Your task to perform on an android device: Open Maps and search for coffee Image 0: 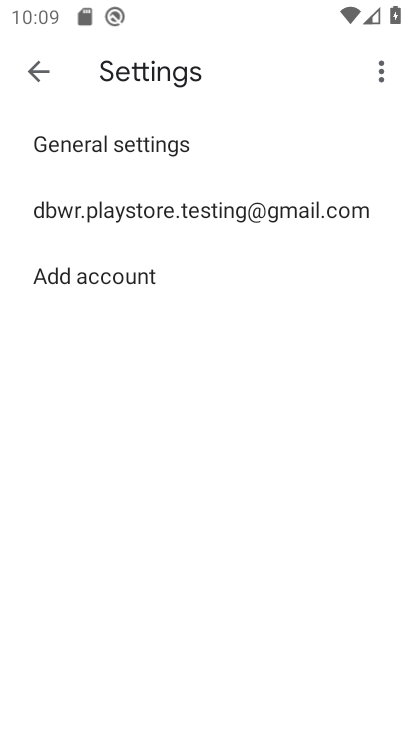
Step 0: press home button
Your task to perform on an android device: Open Maps and search for coffee Image 1: 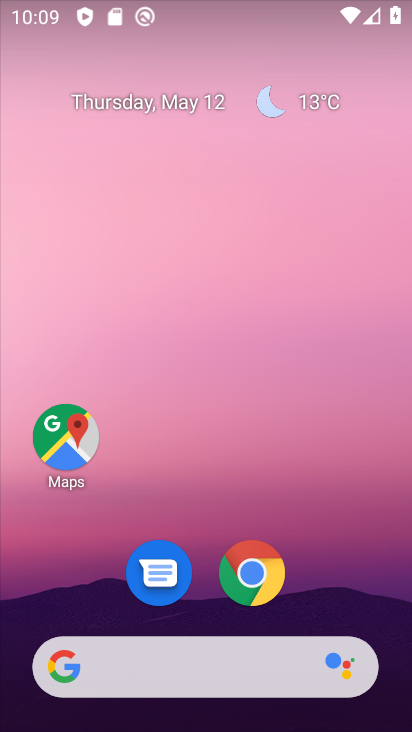
Step 1: click (53, 417)
Your task to perform on an android device: Open Maps and search for coffee Image 2: 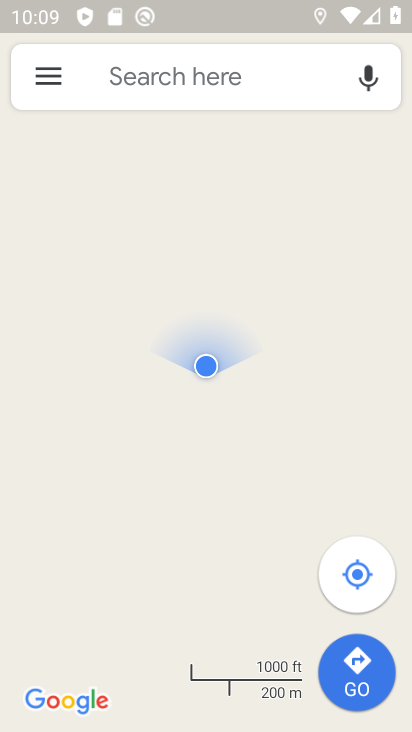
Step 2: click (150, 82)
Your task to perform on an android device: Open Maps and search for coffee Image 3: 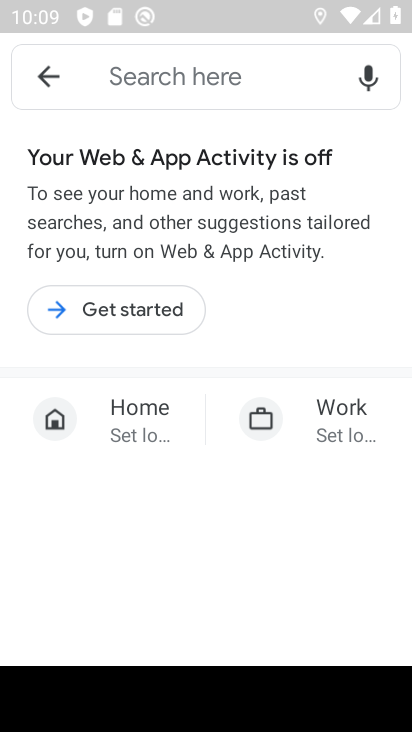
Step 3: click (139, 295)
Your task to perform on an android device: Open Maps and search for coffee Image 4: 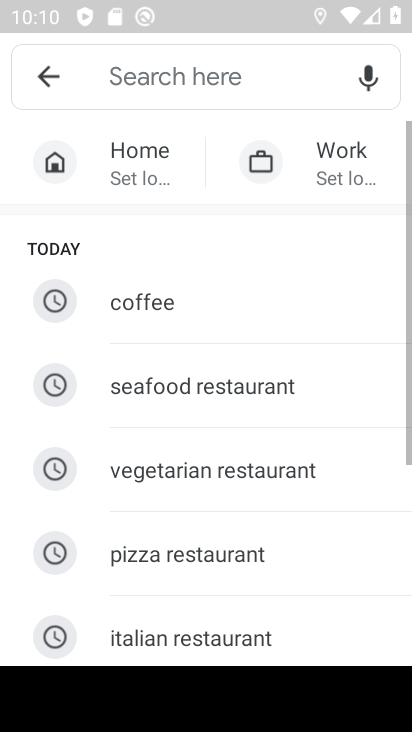
Step 4: click (142, 291)
Your task to perform on an android device: Open Maps and search for coffee Image 5: 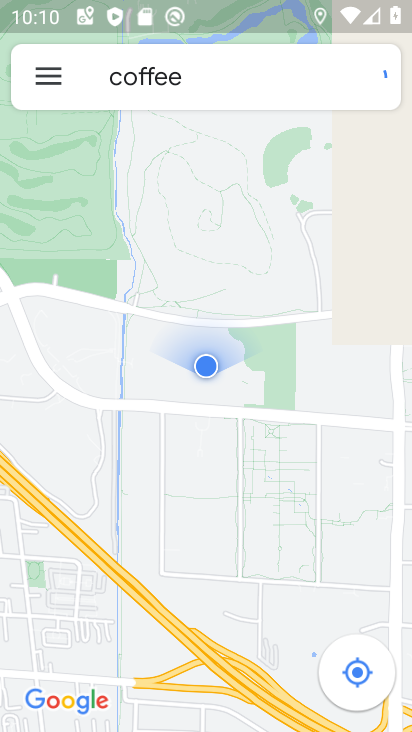
Step 5: task complete